Your task to perform on an android device: Search for lg ultragear on walmart, select the first entry, add it to the cart, then select checkout. Image 0: 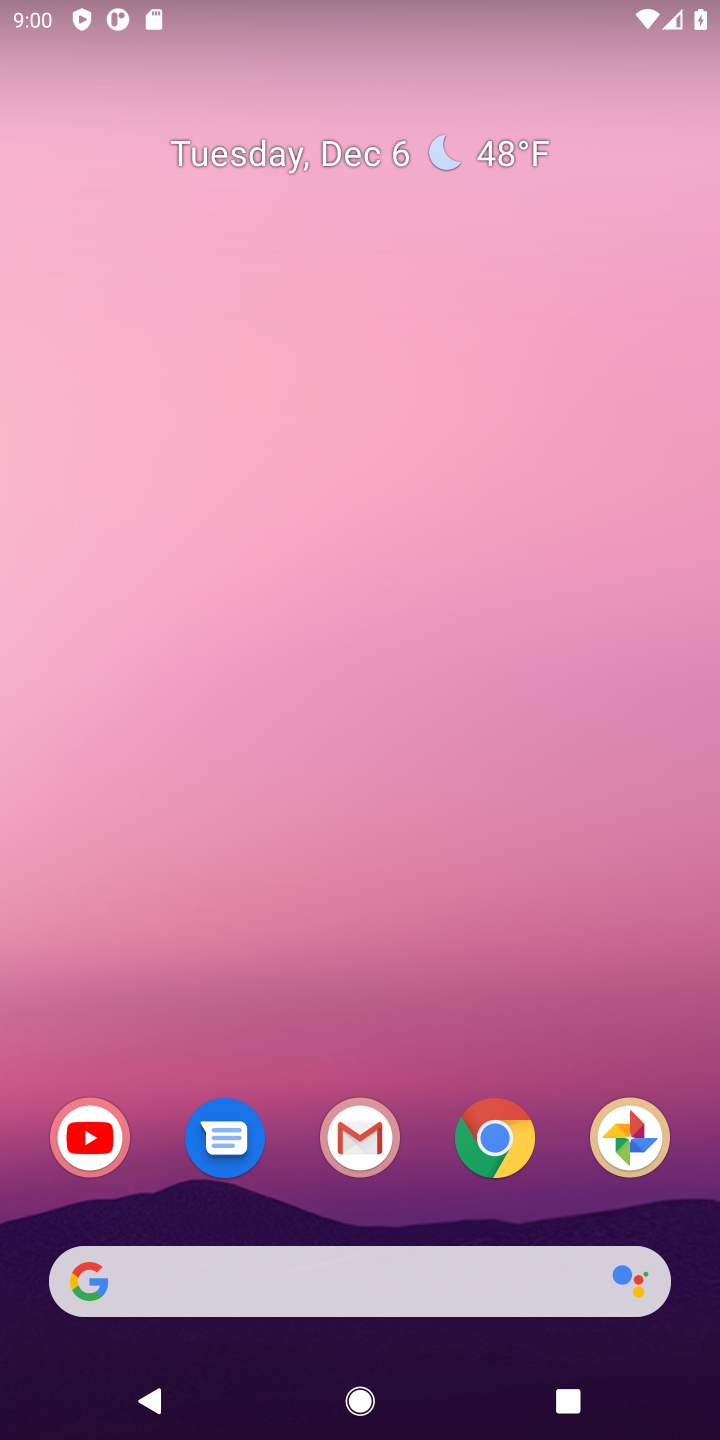
Step 0: click (498, 1139)
Your task to perform on an android device: Search for lg ultragear on walmart, select the first entry, add it to the cart, then select checkout. Image 1: 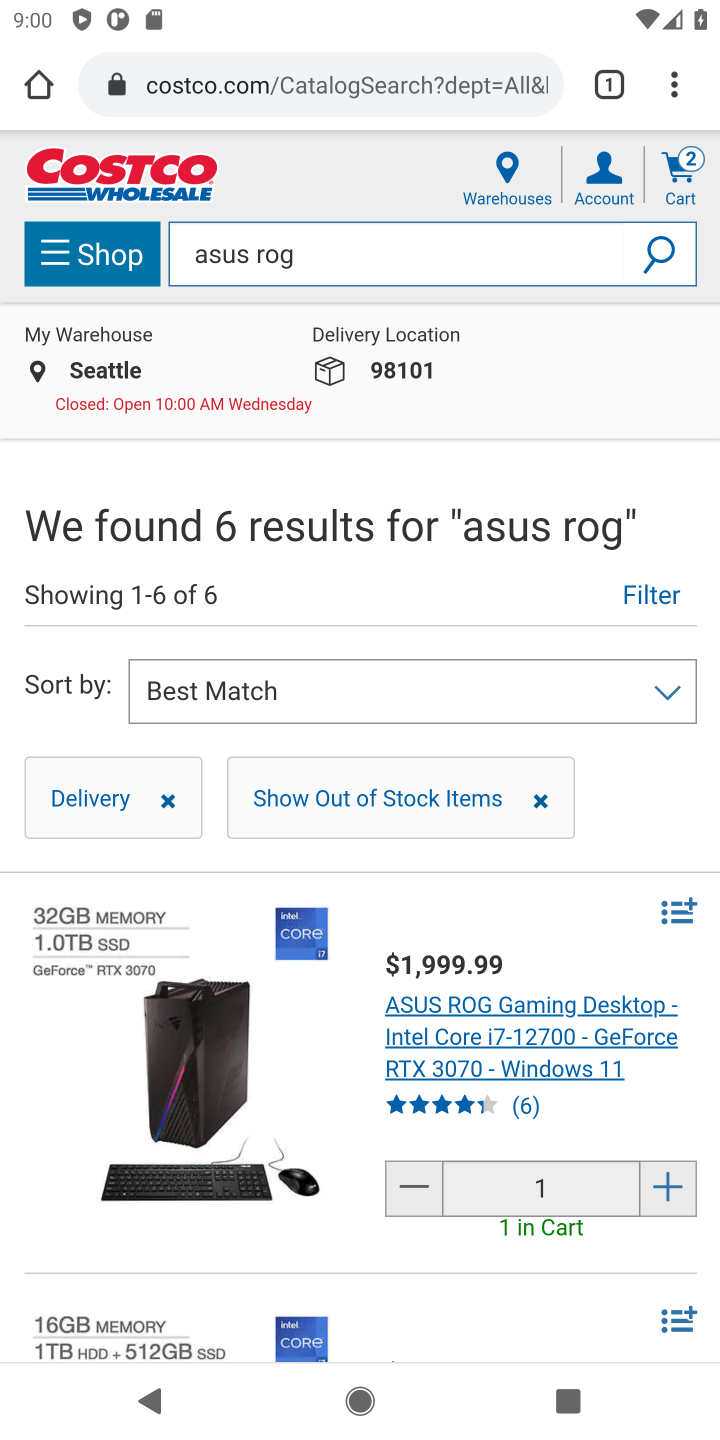
Step 1: click (296, 86)
Your task to perform on an android device: Search for lg ultragear on walmart, select the first entry, add it to the cart, then select checkout. Image 2: 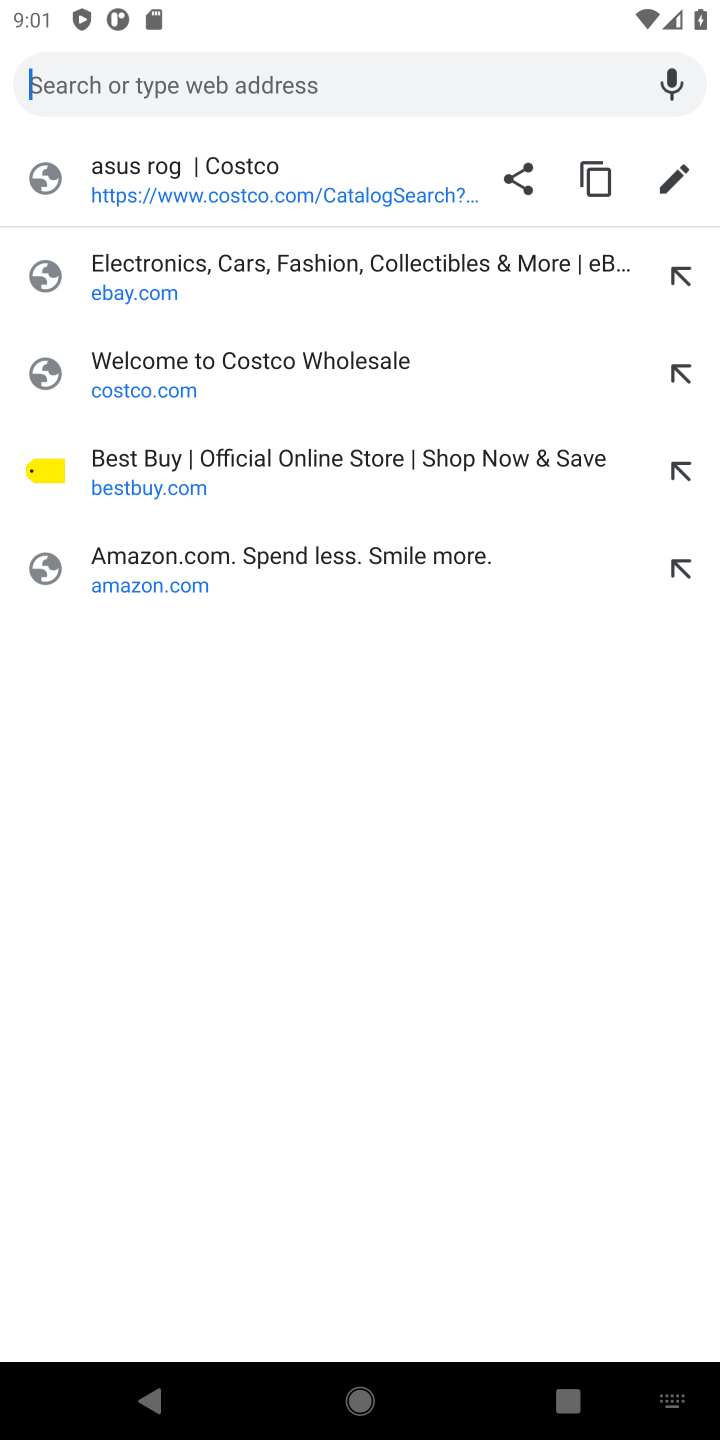
Step 2: type "walmart.com"
Your task to perform on an android device: Search for lg ultragear on walmart, select the first entry, add it to the cart, then select checkout. Image 3: 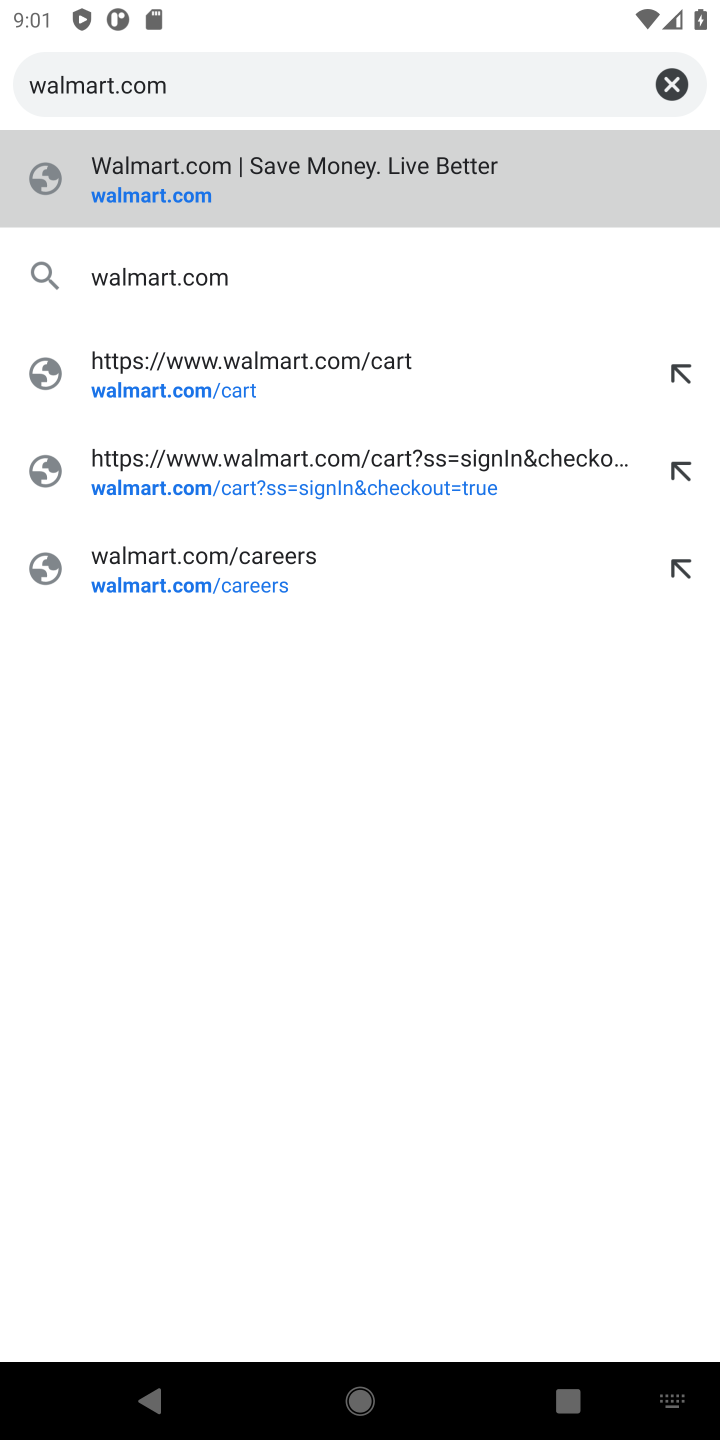
Step 3: click (149, 204)
Your task to perform on an android device: Search for lg ultragear on walmart, select the first entry, add it to the cart, then select checkout. Image 4: 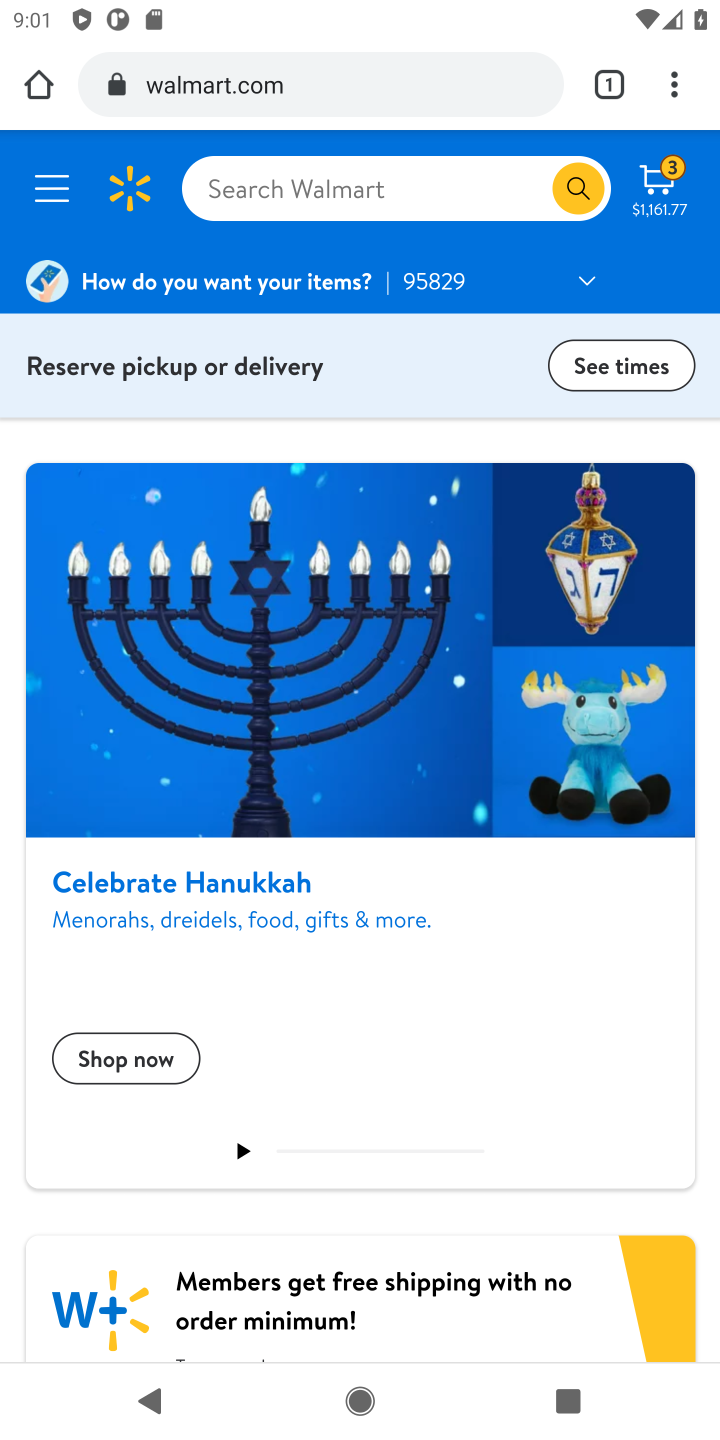
Step 4: click (317, 202)
Your task to perform on an android device: Search for lg ultragear on walmart, select the first entry, add it to the cart, then select checkout. Image 5: 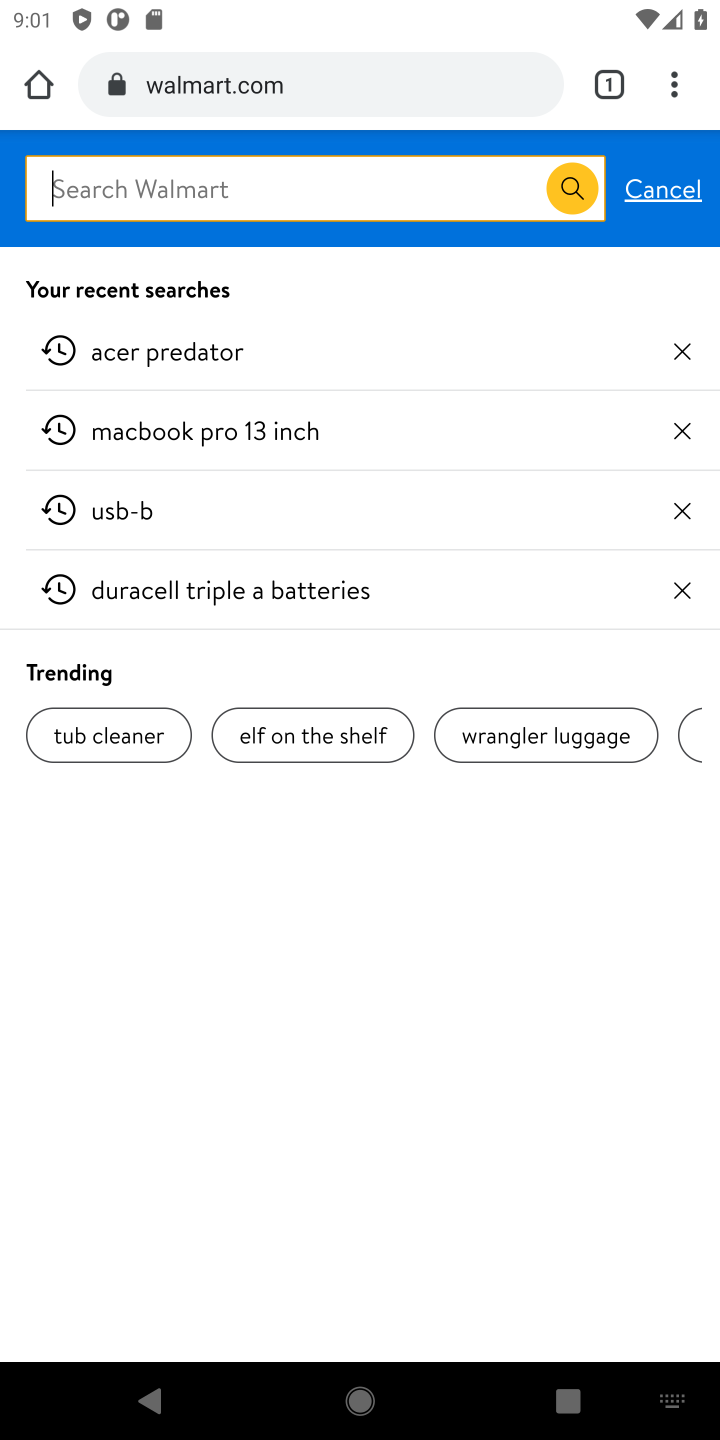
Step 5: type "lg ultragear"
Your task to perform on an android device: Search for lg ultragear on walmart, select the first entry, add it to the cart, then select checkout. Image 6: 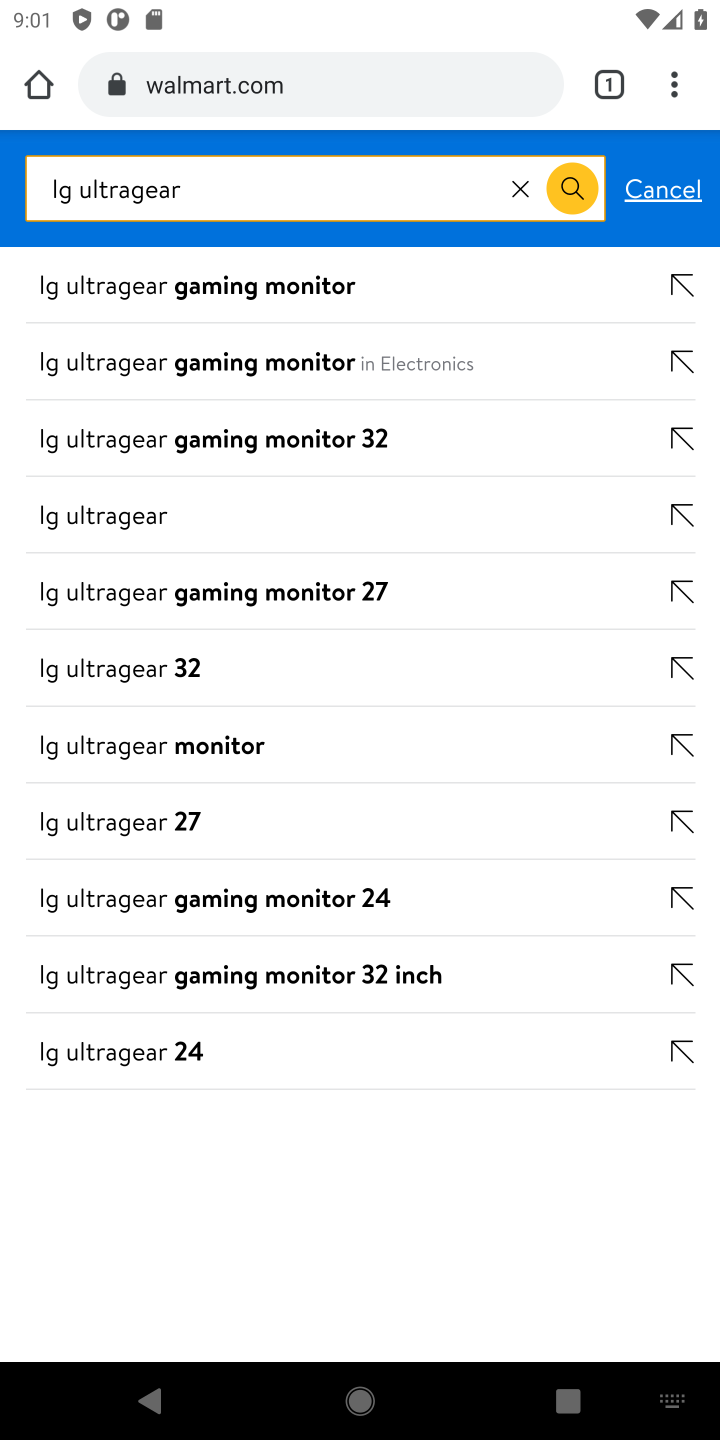
Step 6: click (132, 526)
Your task to perform on an android device: Search for lg ultragear on walmart, select the first entry, add it to the cart, then select checkout. Image 7: 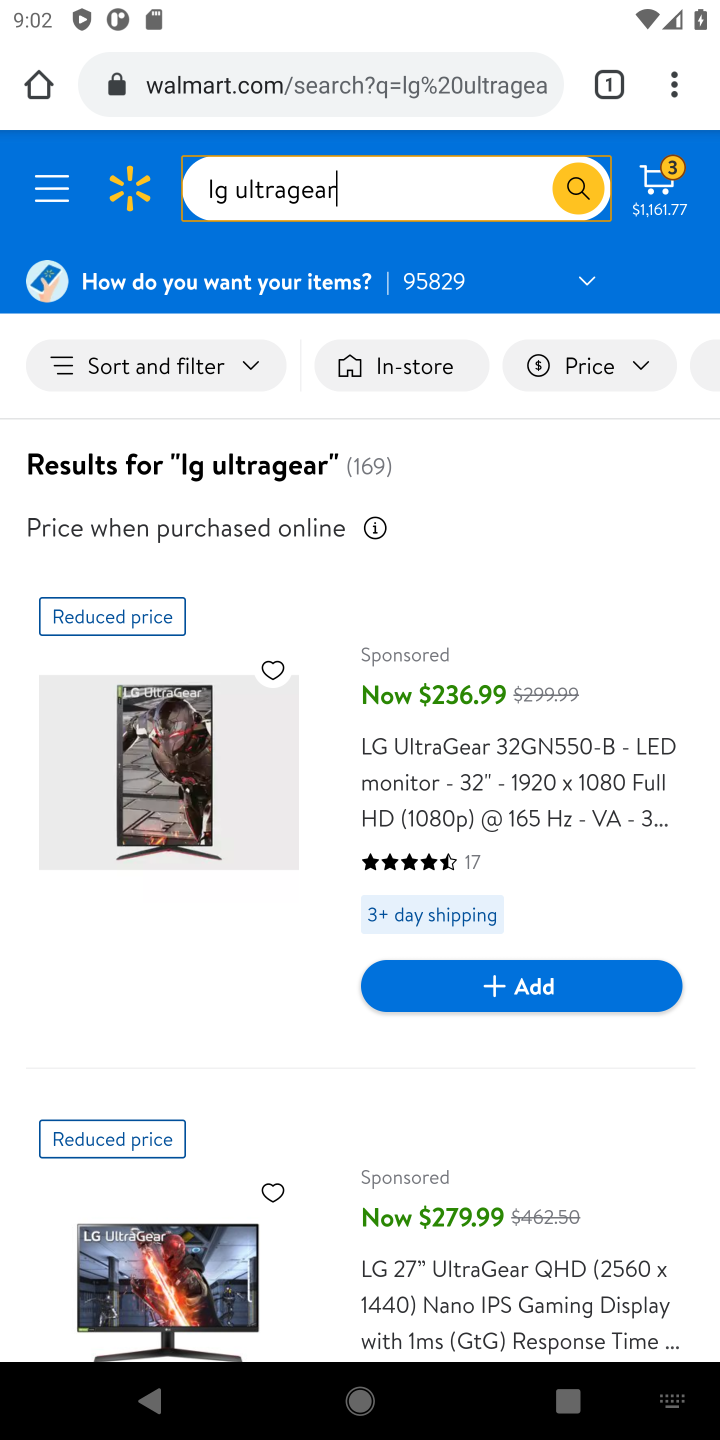
Step 7: click (476, 996)
Your task to perform on an android device: Search for lg ultragear on walmart, select the first entry, add it to the cart, then select checkout. Image 8: 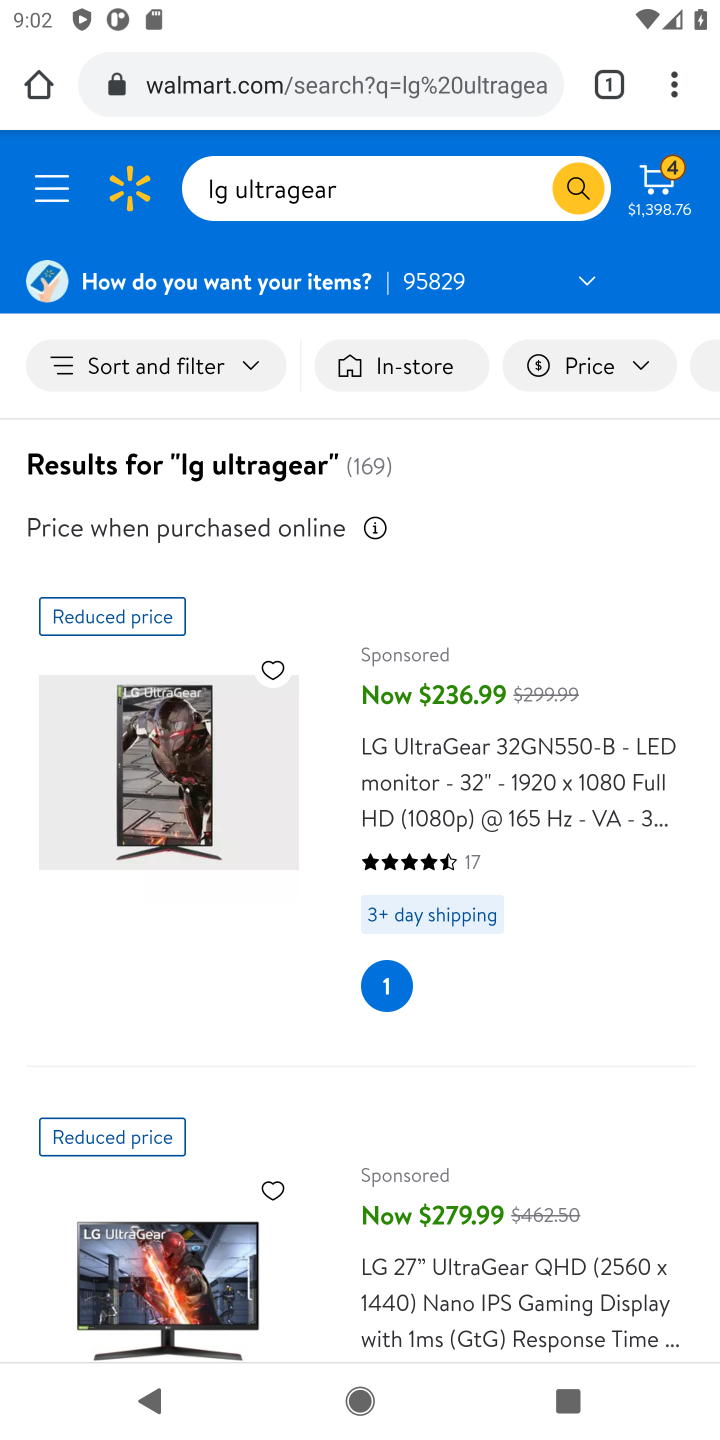
Step 8: click (672, 179)
Your task to perform on an android device: Search for lg ultragear on walmart, select the first entry, add it to the cart, then select checkout. Image 9: 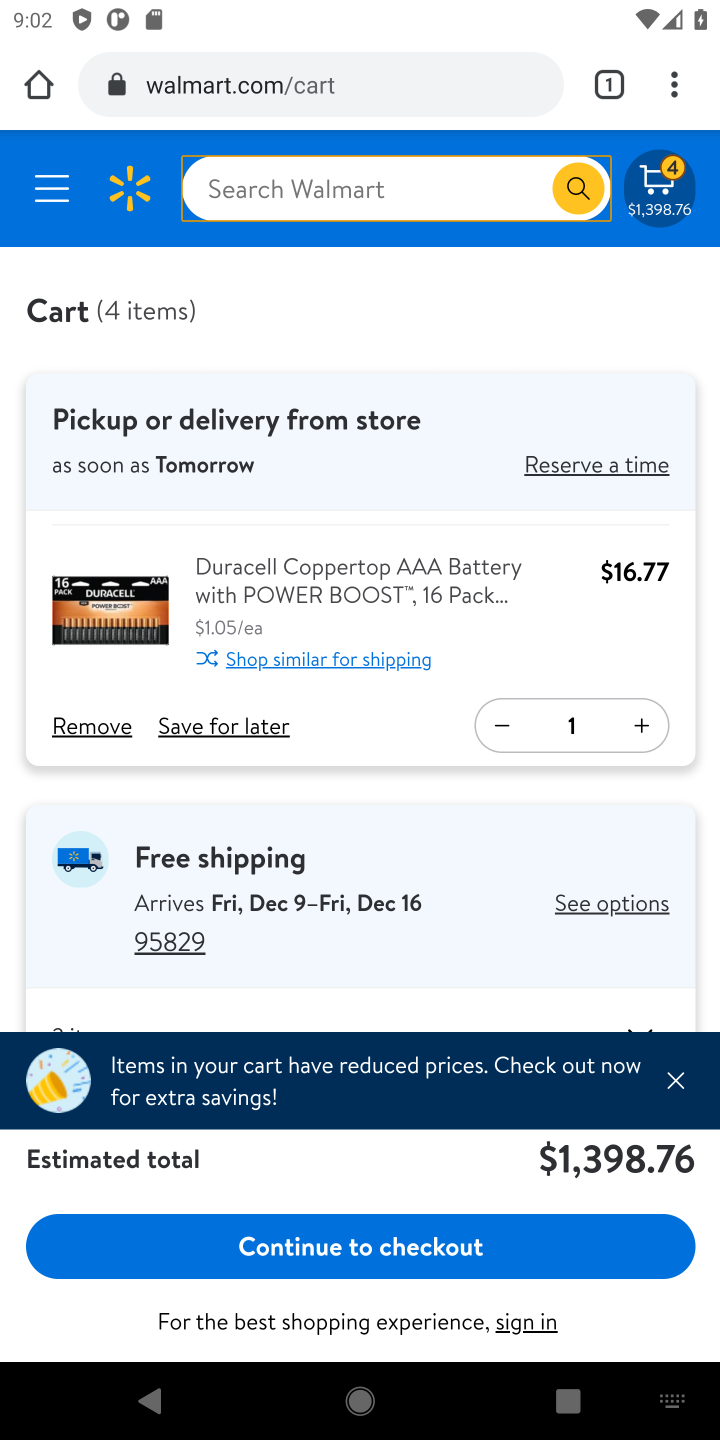
Step 9: click (330, 1255)
Your task to perform on an android device: Search for lg ultragear on walmart, select the first entry, add it to the cart, then select checkout. Image 10: 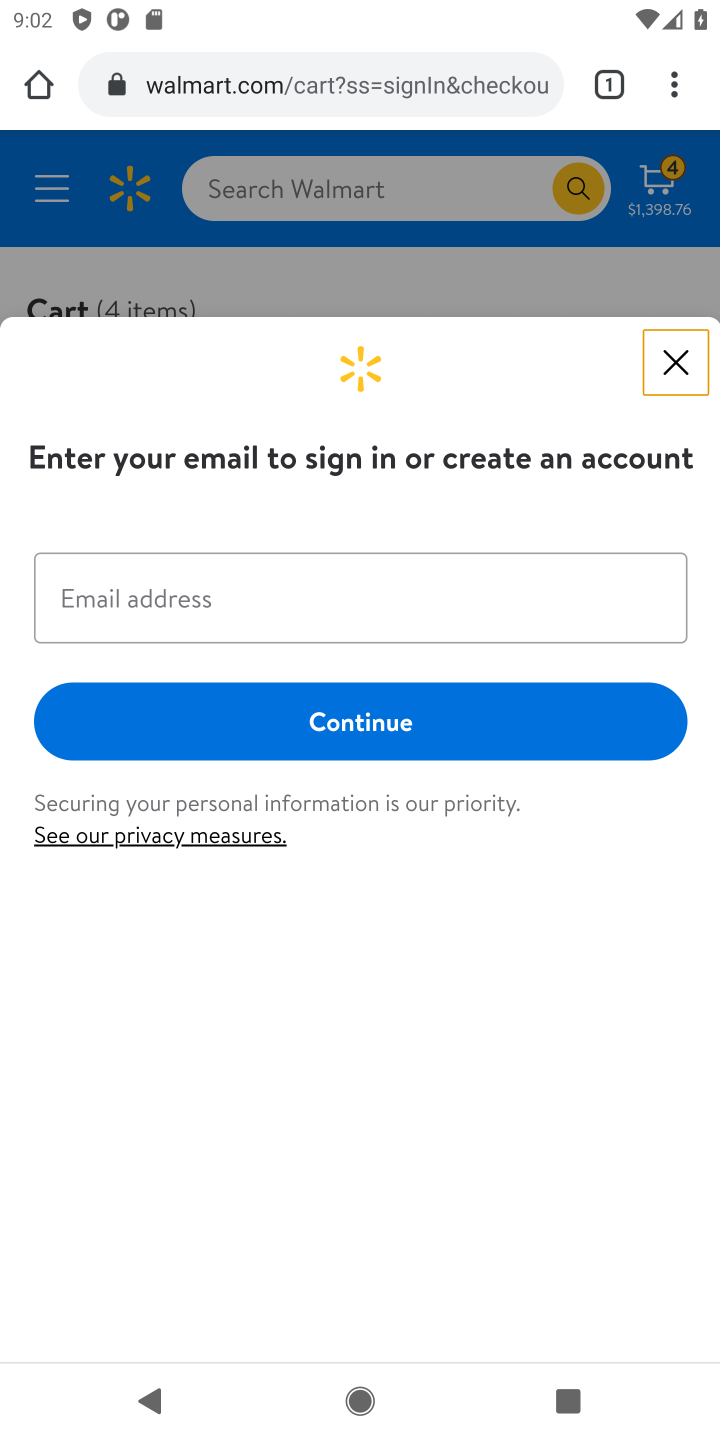
Step 10: task complete